Your task to perform on an android device: Show the shopping cart on ebay. Image 0: 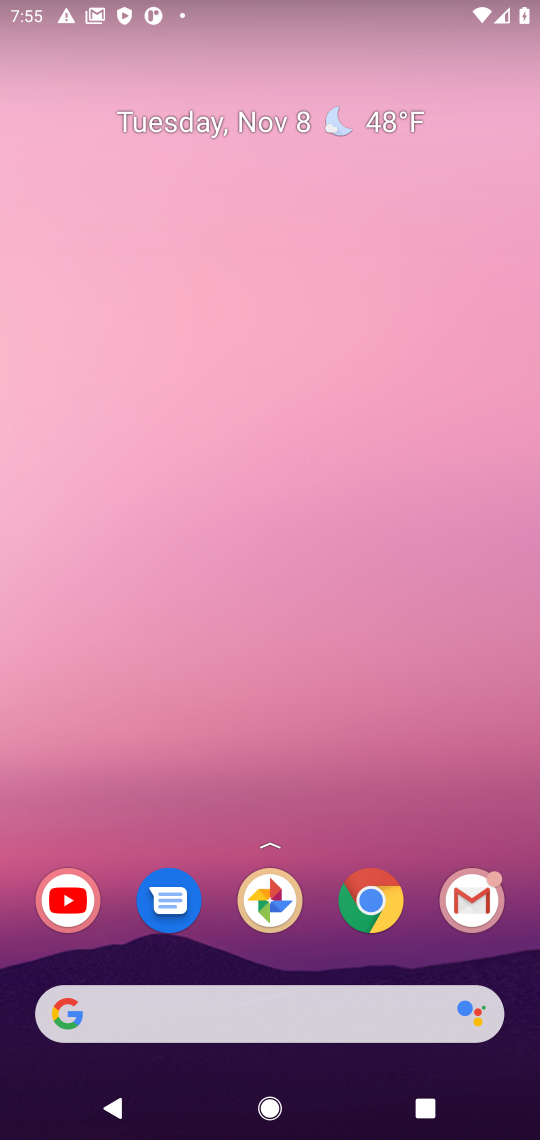
Step 0: click (363, 921)
Your task to perform on an android device: Show the shopping cart on ebay. Image 1: 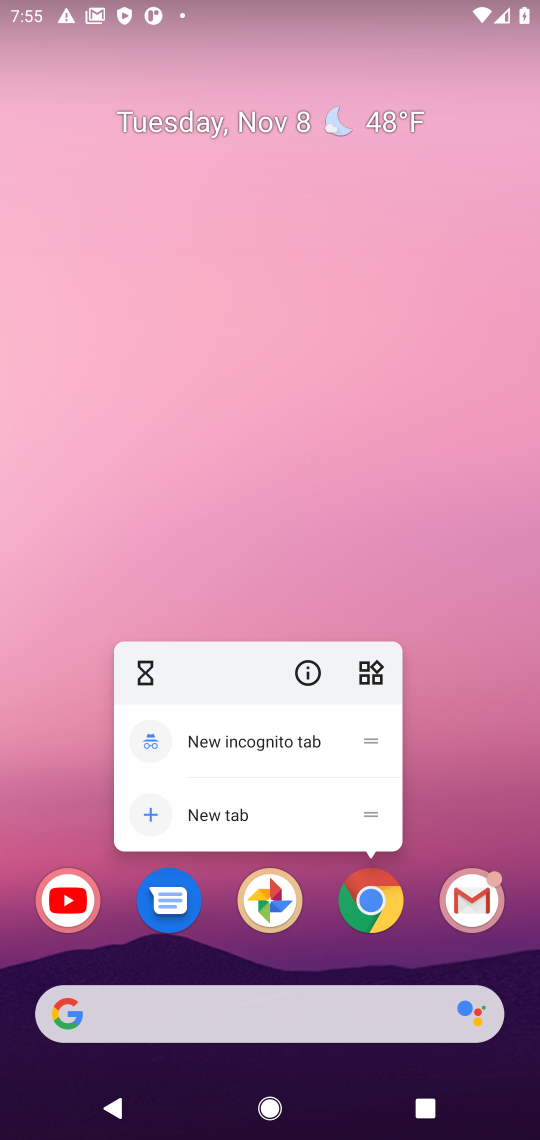
Step 1: click (388, 912)
Your task to perform on an android device: Show the shopping cart on ebay. Image 2: 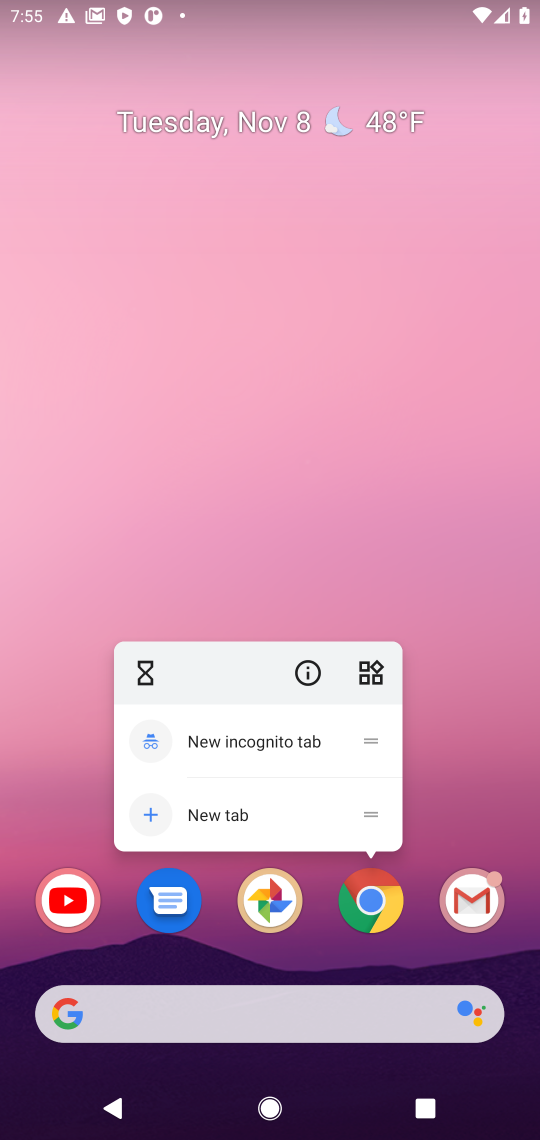
Step 2: click (394, 902)
Your task to perform on an android device: Show the shopping cart on ebay. Image 3: 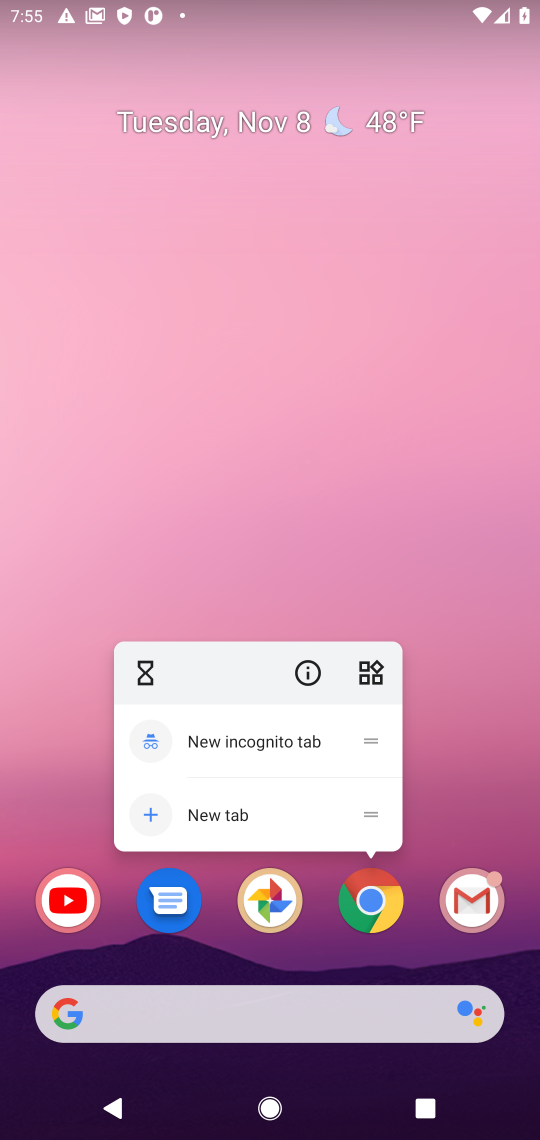
Step 3: click (369, 912)
Your task to perform on an android device: Show the shopping cart on ebay. Image 4: 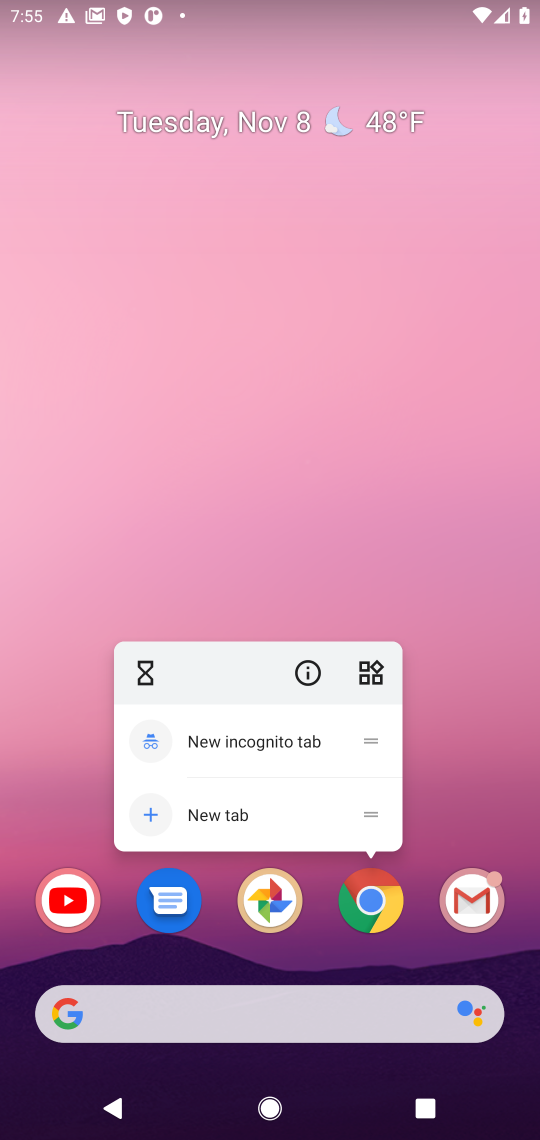
Step 4: click (369, 912)
Your task to perform on an android device: Show the shopping cart on ebay. Image 5: 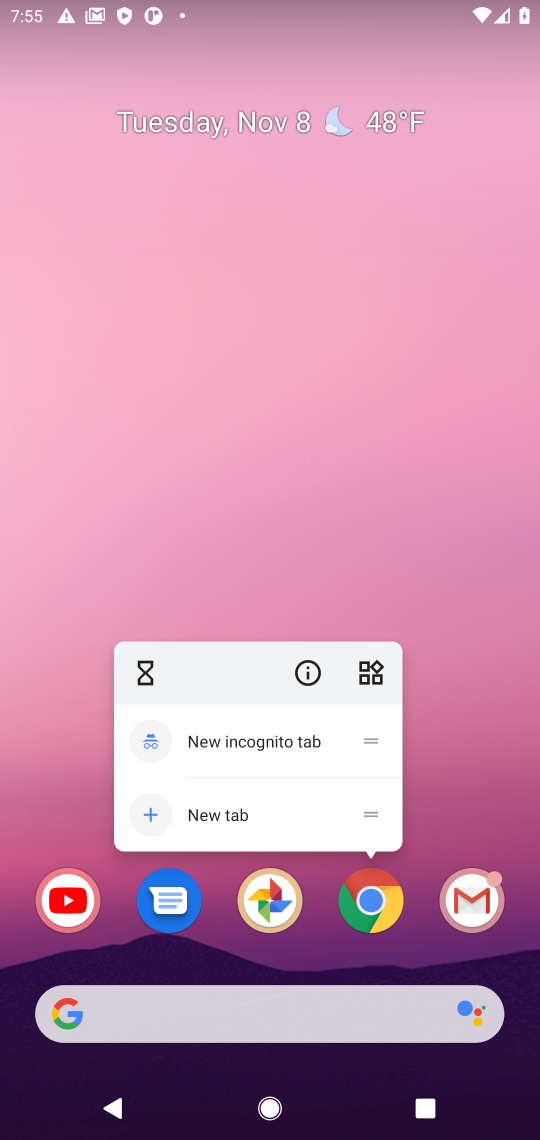
Step 5: click (369, 912)
Your task to perform on an android device: Show the shopping cart on ebay. Image 6: 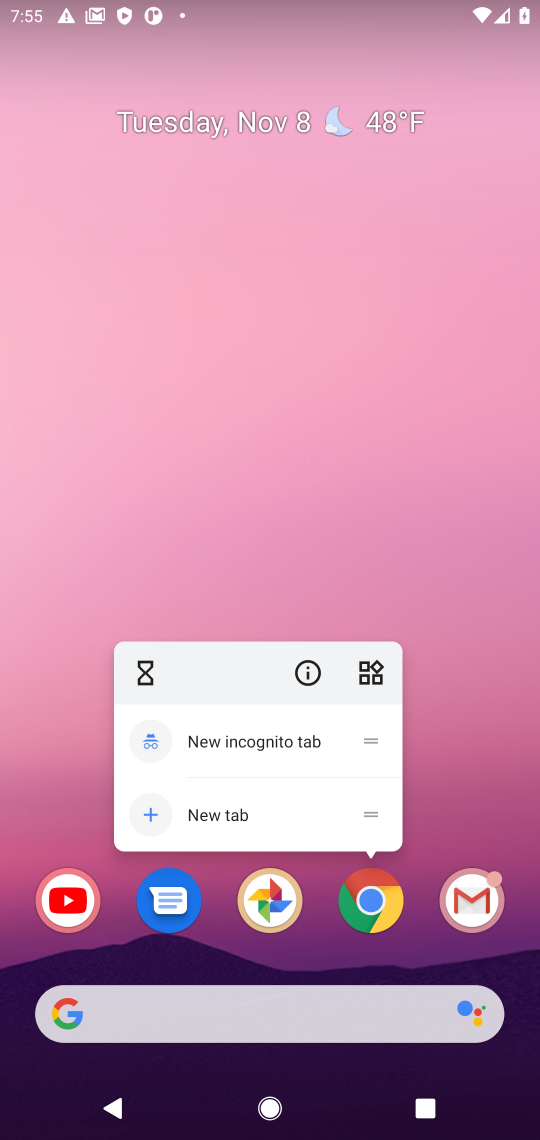
Step 6: press back button
Your task to perform on an android device: Show the shopping cart on ebay. Image 7: 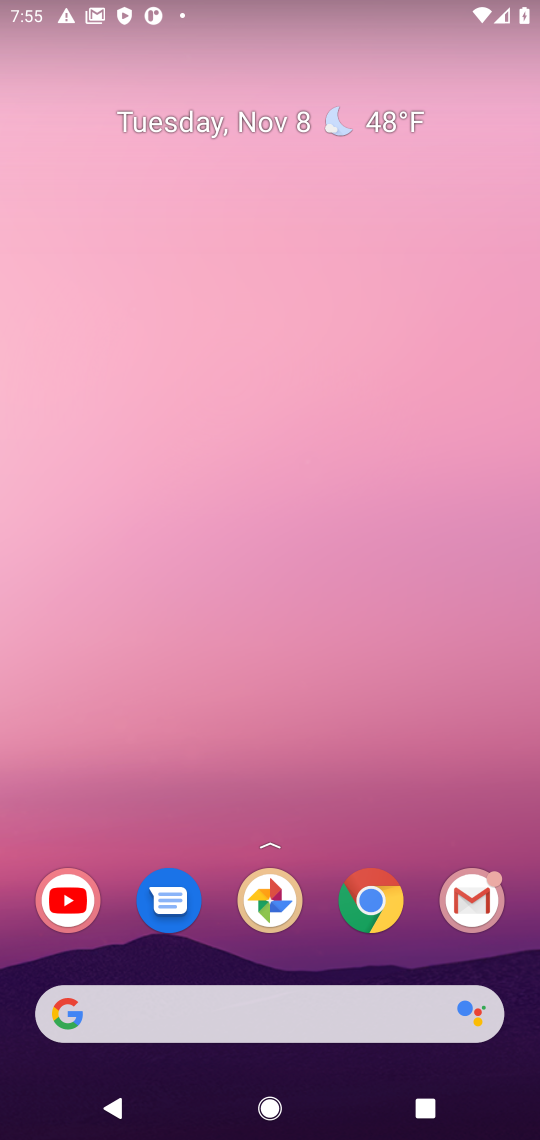
Step 7: press back button
Your task to perform on an android device: Show the shopping cart on ebay. Image 8: 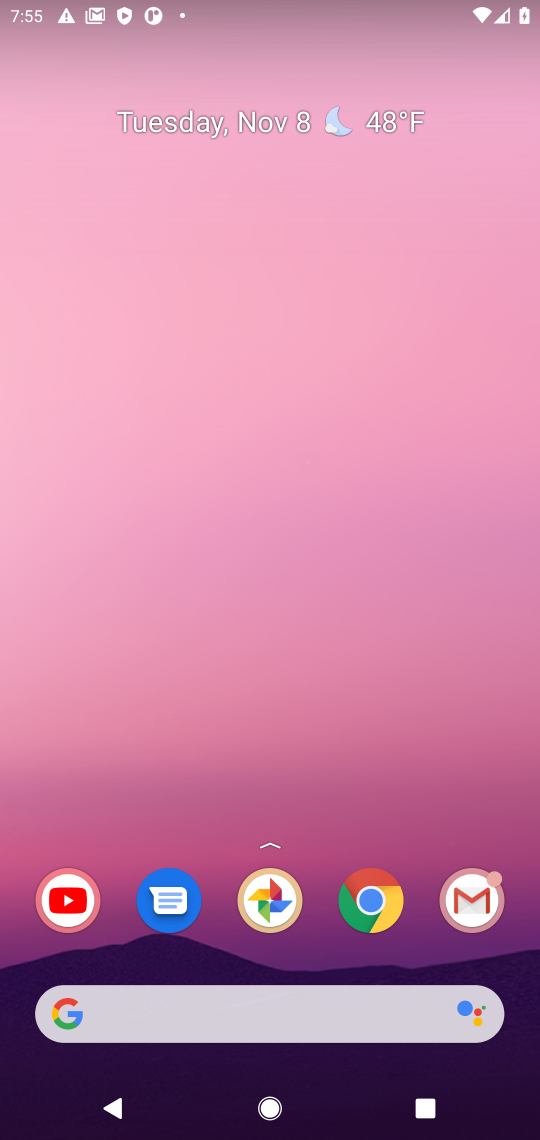
Step 8: press back button
Your task to perform on an android device: Show the shopping cart on ebay. Image 9: 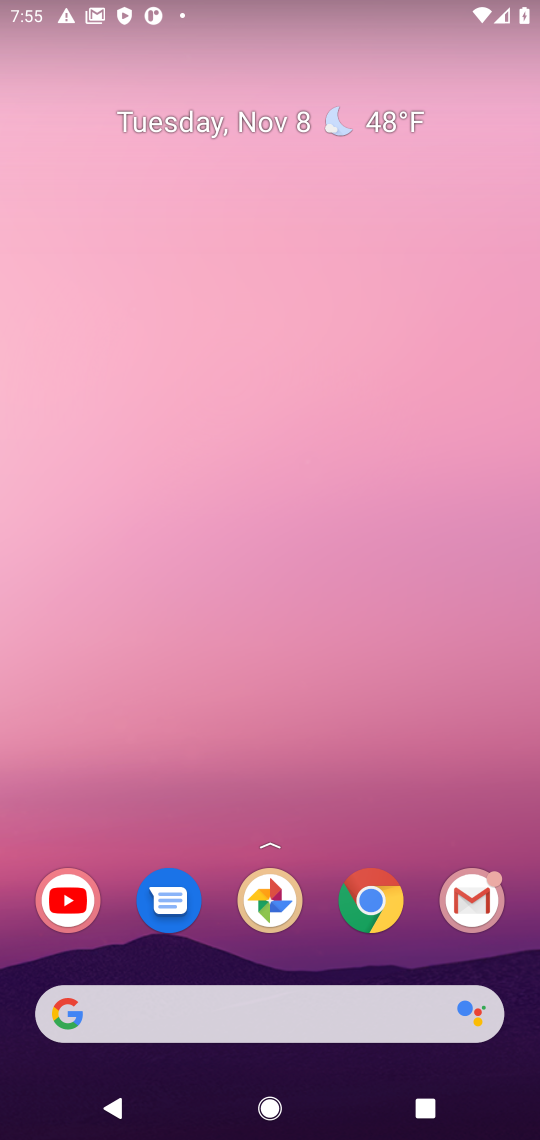
Step 9: click (373, 892)
Your task to perform on an android device: Show the shopping cart on ebay. Image 10: 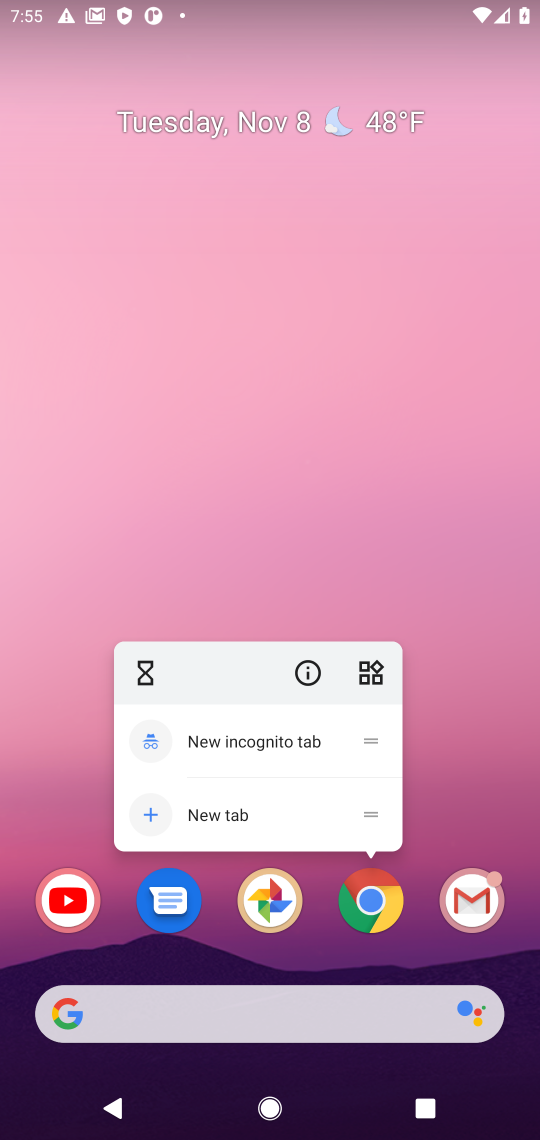
Step 10: click (384, 896)
Your task to perform on an android device: Show the shopping cart on ebay. Image 11: 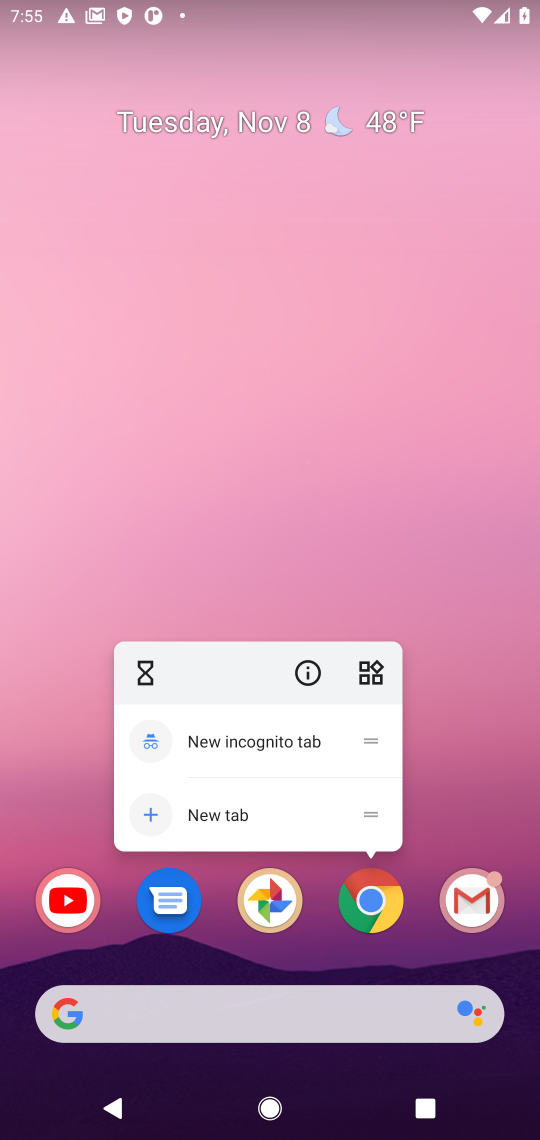
Step 11: press home button
Your task to perform on an android device: Show the shopping cart on ebay. Image 12: 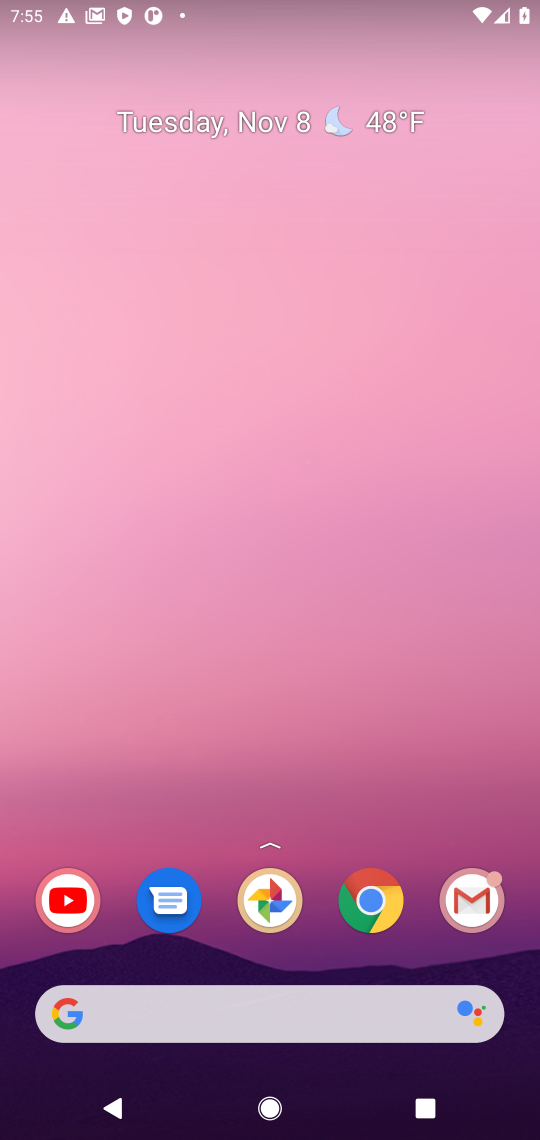
Step 12: click (375, 911)
Your task to perform on an android device: Show the shopping cart on ebay. Image 13: 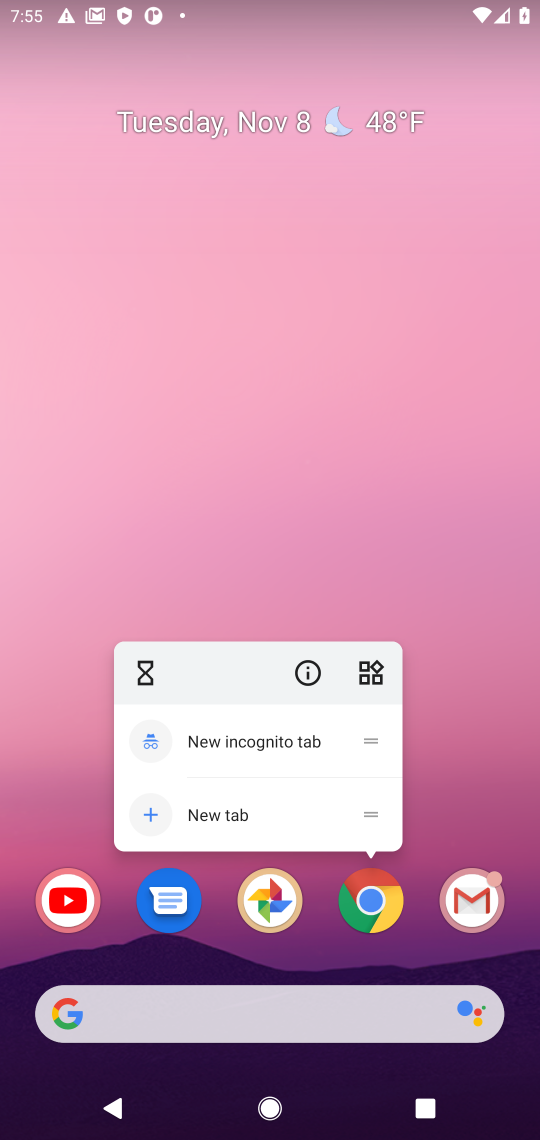
Step 13: click (371, 906)
Your task to perform on an android device: Show the shopping cart on ebay. Image 14: 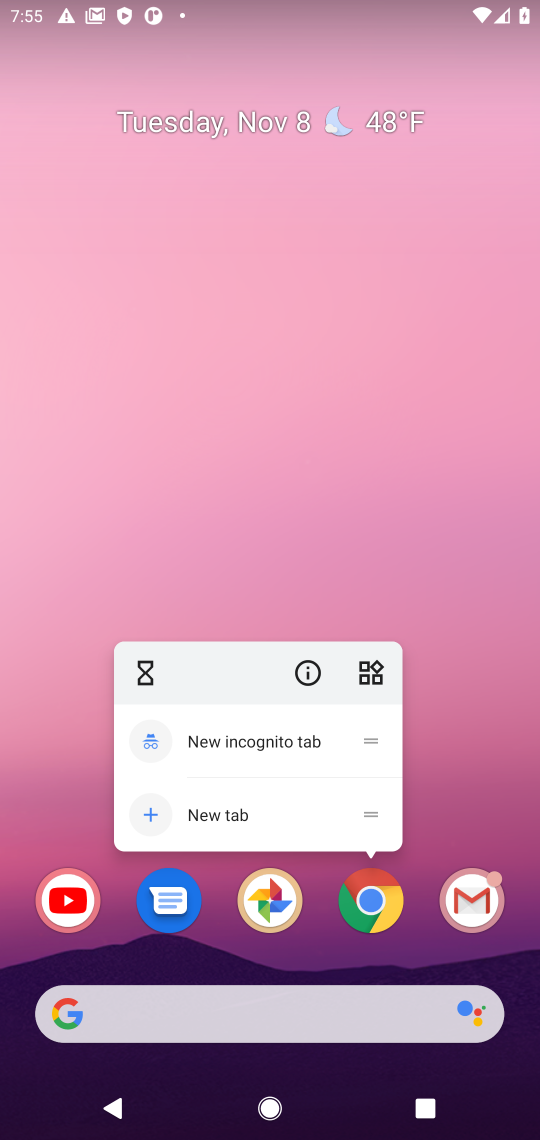
Step 14: click (371, 906)
Your task to perform on an android device: Show the shopping cart on ebay. Image 15: 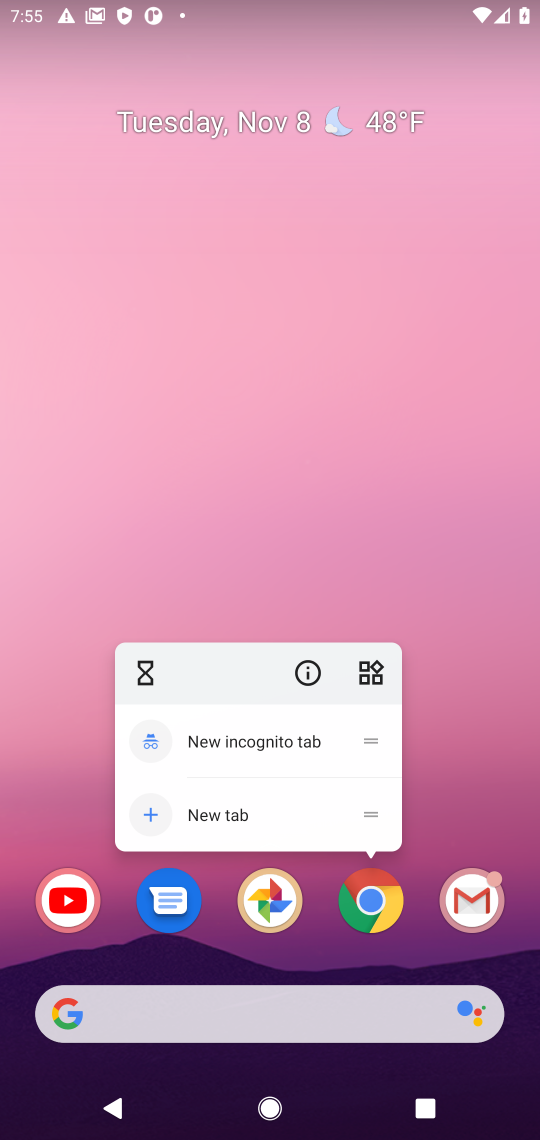
Step 15: click (371, 906)
Your task to perform on an android device: Show the shopping cart on ebay. Image 16: 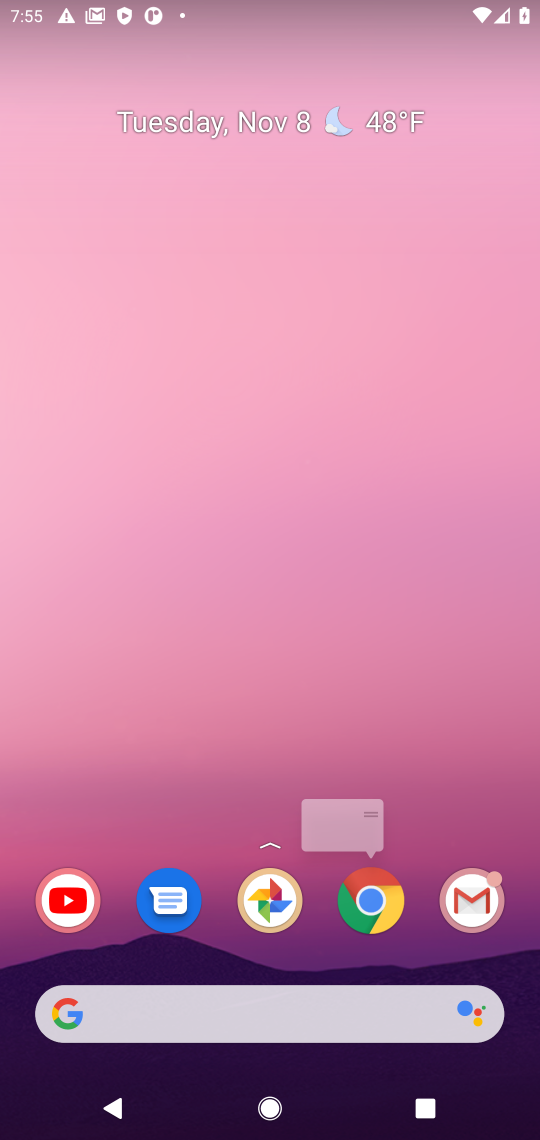
Step 16: click (371, 906)
Your task to perform on an android device: Show the shopping cart on ebay. Image 17: 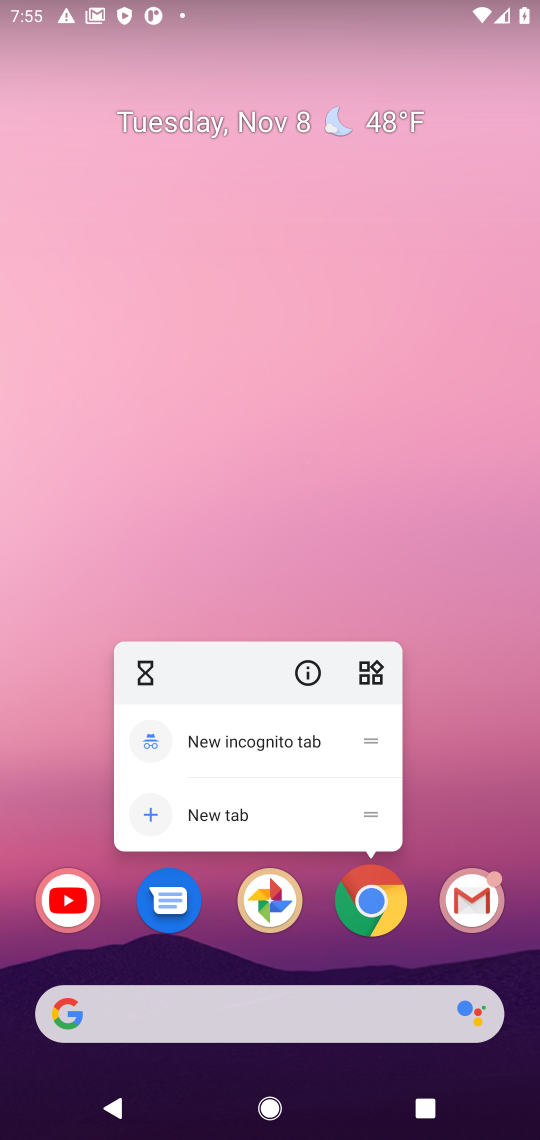
Step 17: click (371, 906)
Your task to perform on an android device: Show the shopping cart on ebay. Image 18: 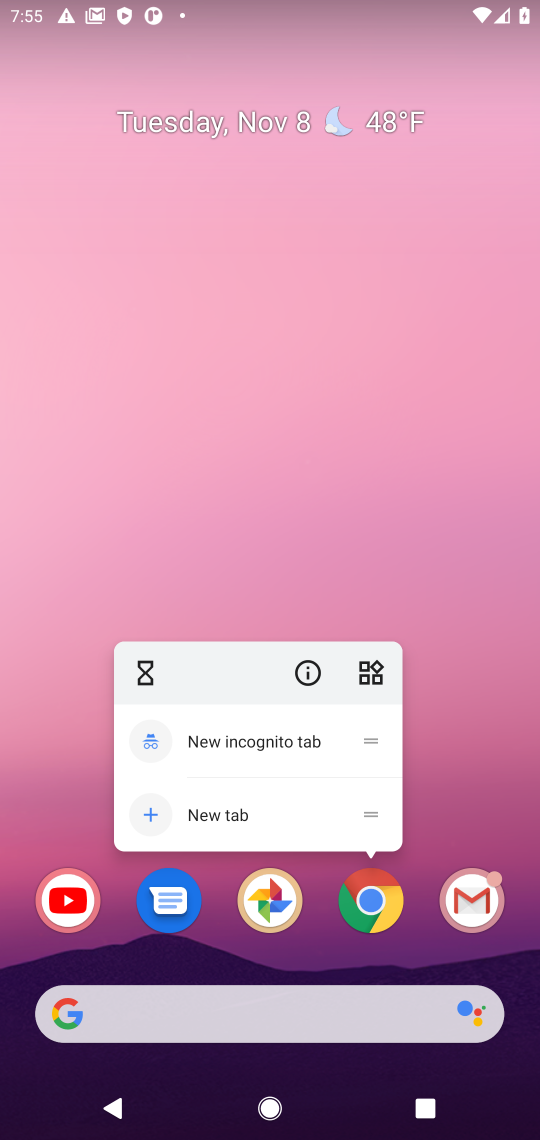
Step 18: click (369, 914)
Your task to perform on an android device: Show the shopping cart on ebay. Image 19: 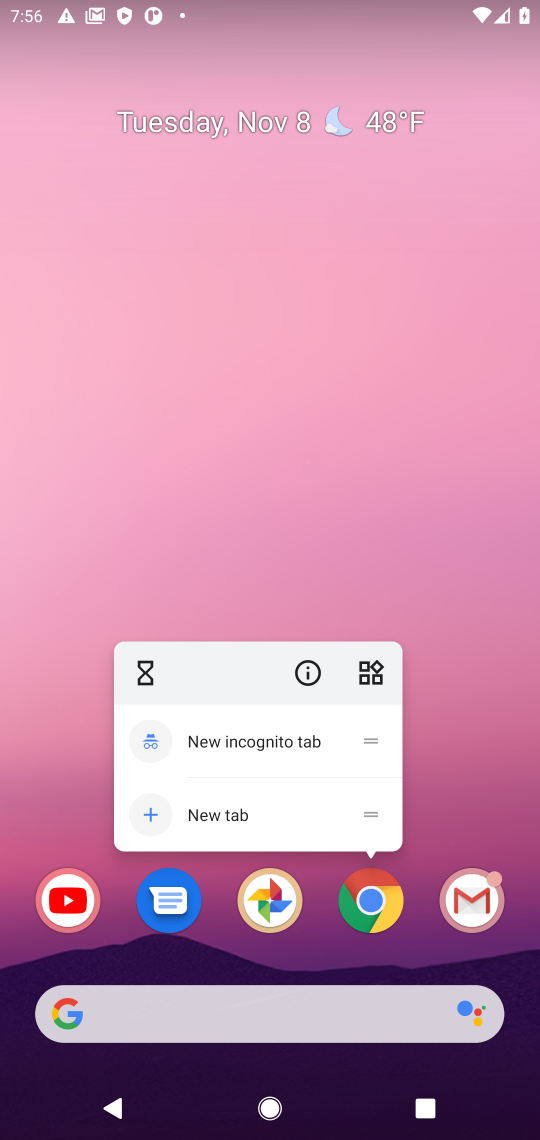
Step 19: press home button
Your task to perform on an android device: Show the shopping cart on ebay. Image 20: 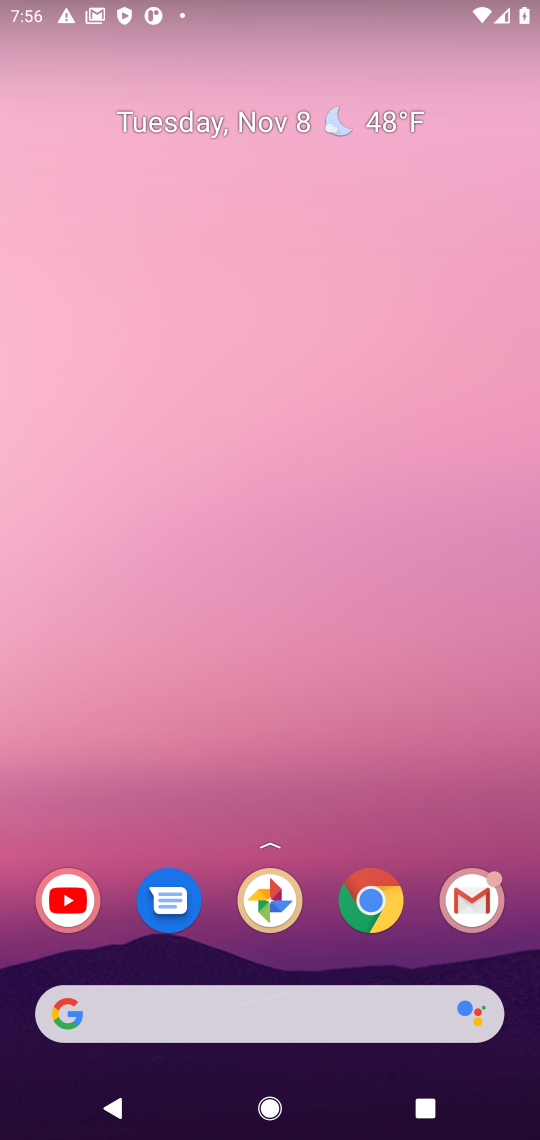
Step 20: press home button
Your task to perform on an android device: Show the shopping cart on ebay. Image 21: 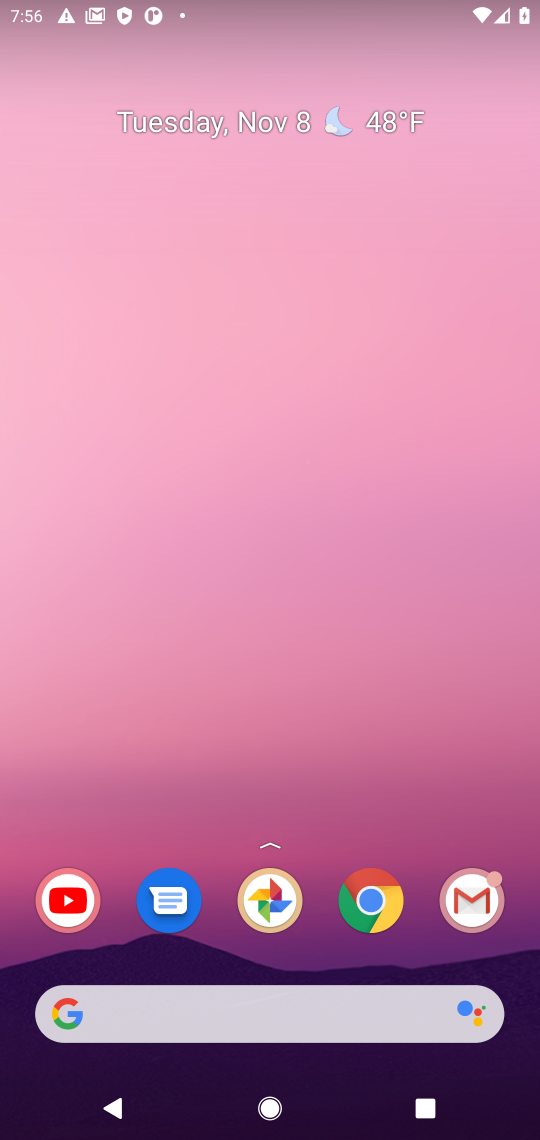
Step 21: click (387, 898)
Your task to perform on an android device: Show the shopping cart on ebay. Image 22: 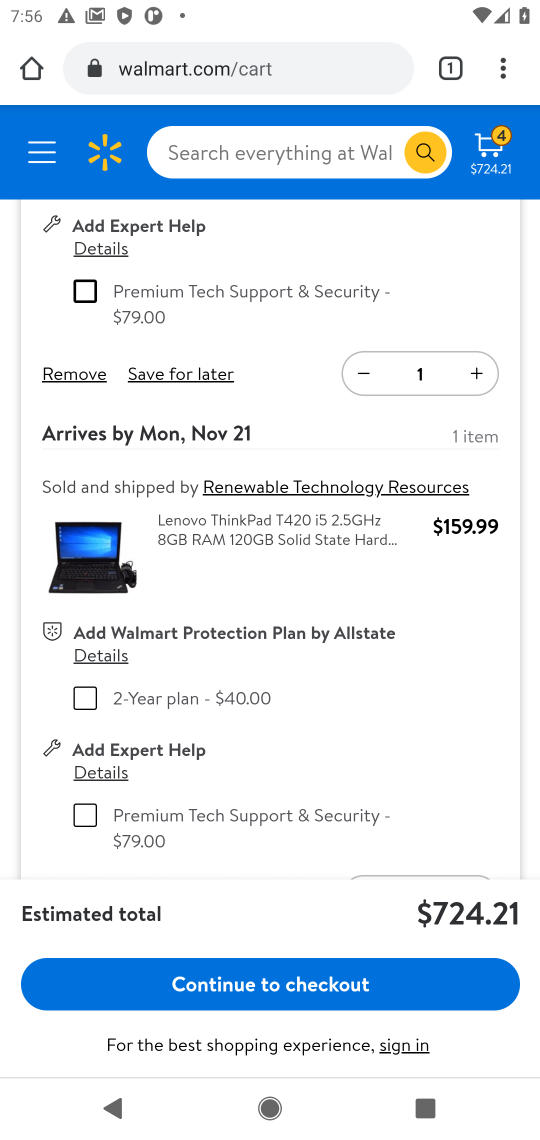
Step 22: click (178, 72)
Your task to perform on an android device: Show the shopping cart on ebay. Image 23: 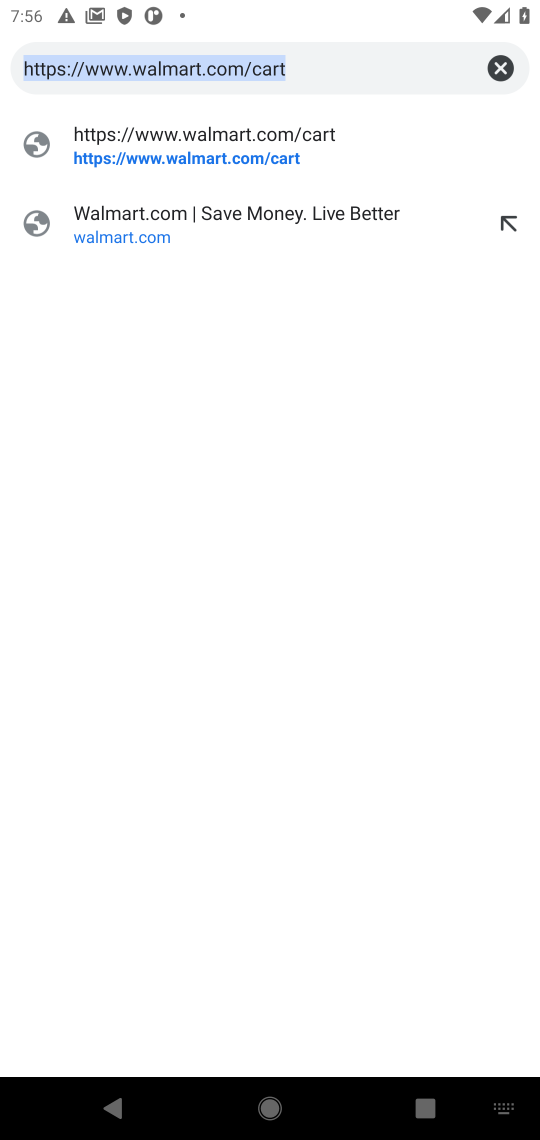
Step 23: click (504, 72)
Your task to perform on an android device: Show the shopping cart on ebay. Image 24: 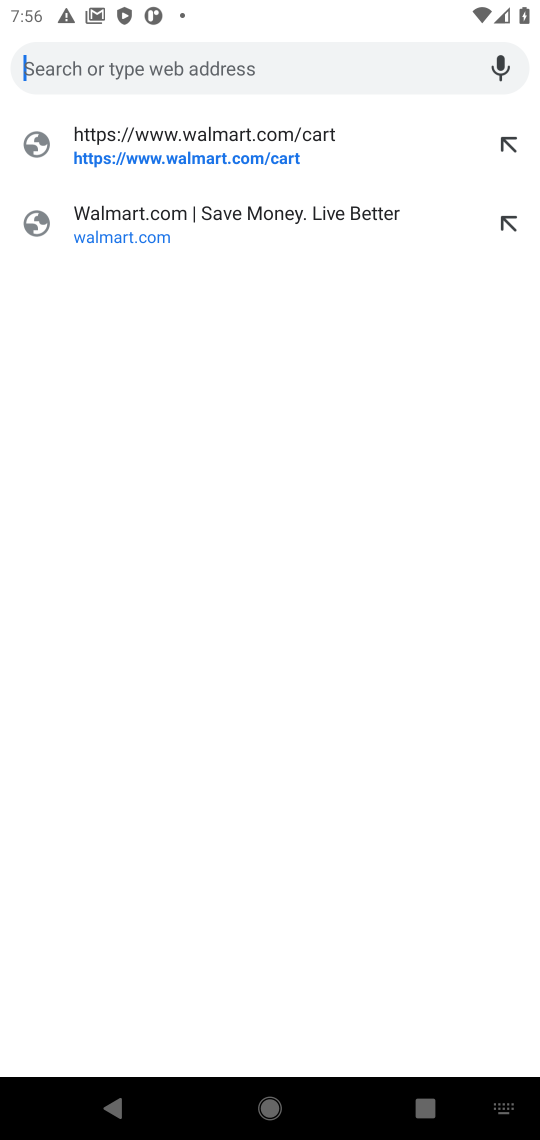
Step 24: type "ebay"
Your task to perform on an android device: Show the shopping cart on ebay. Image 25: 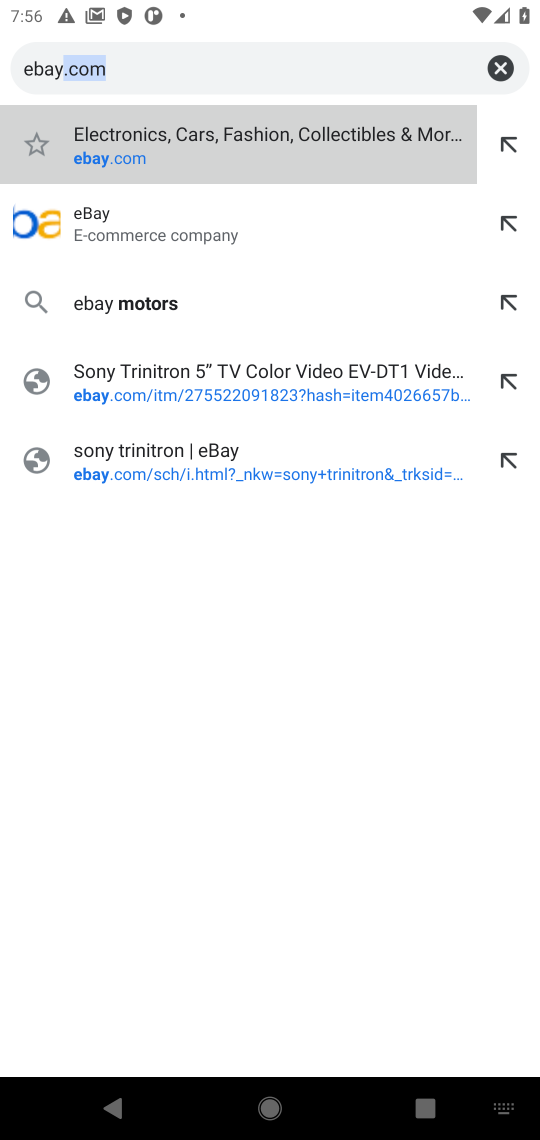
Step 25: type ""
Your task to perform on an android device: Show the shopping cart on ebay. Image 26: 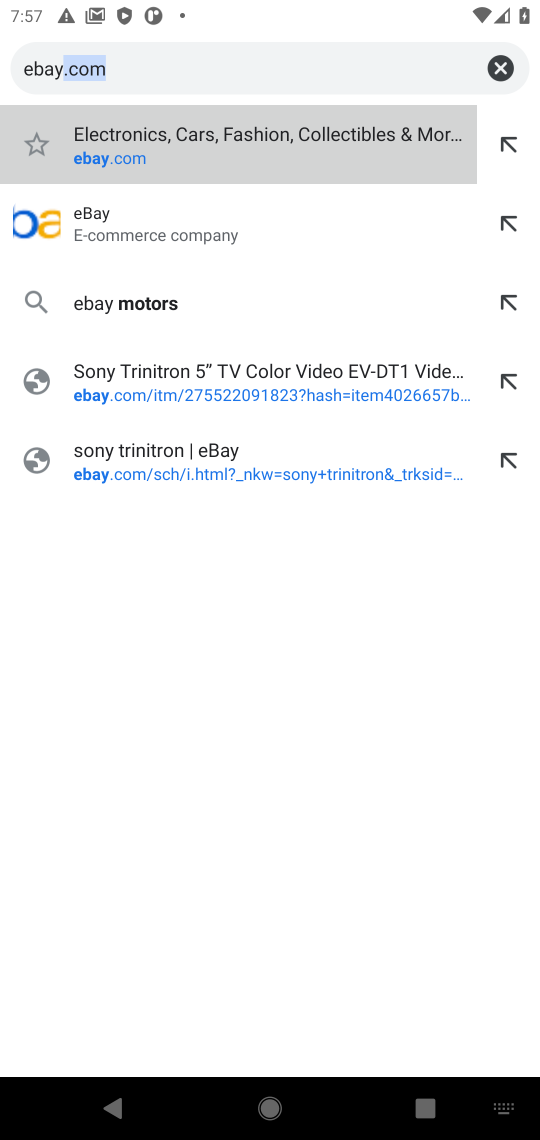
Step 26: click (88, 220)
Your task to perform on an android device: Show the shopping cart on ebay. Image 27: 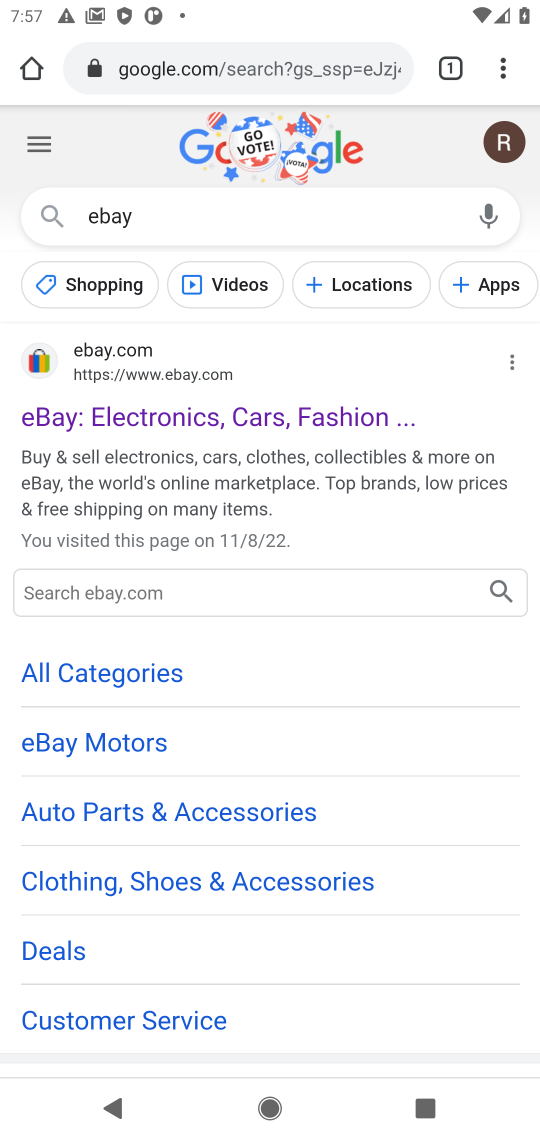
Step 27: click (110, 406)
Your task to perform on an android device: Show the shopping cart on ebay. Image 28: 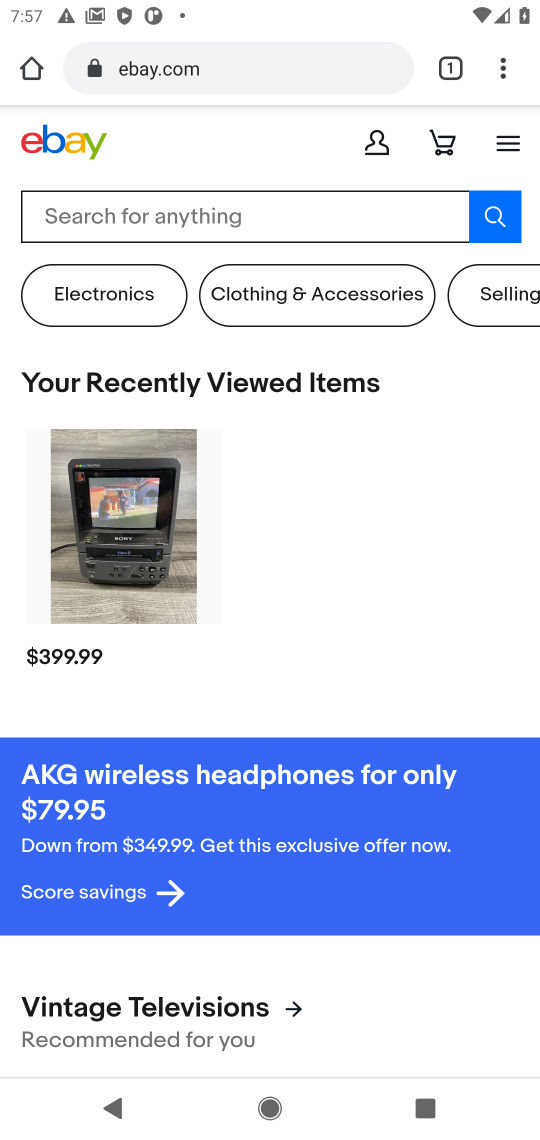
Step 28: click (49, 204)
Your task to perform on an android device: Show the shopping cart on ebay. Image 29: 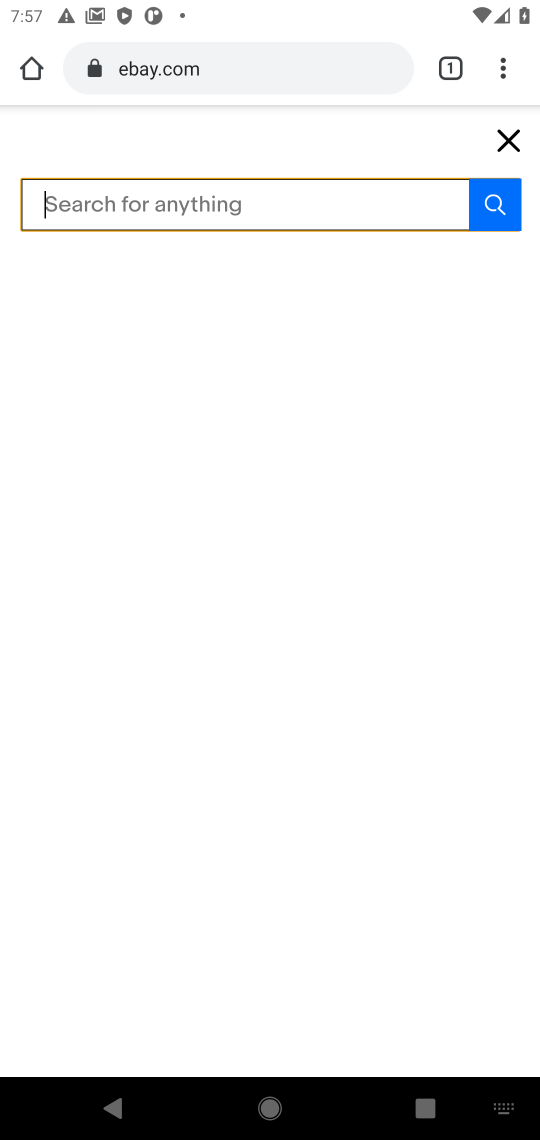
Step 29: press back button
Your task to perform on an android device: Show the shopping cart on ebay. Image 30: 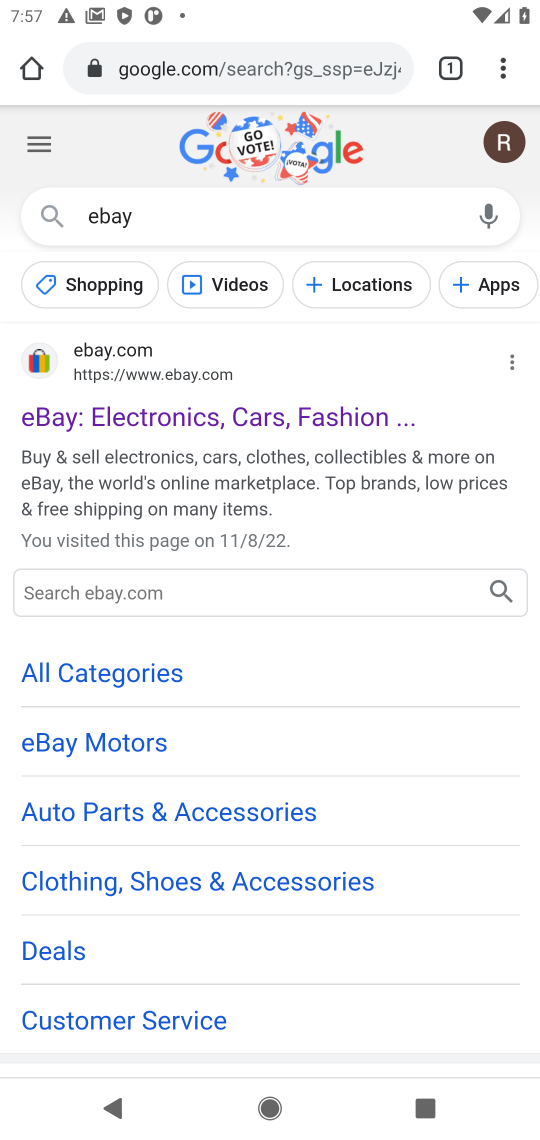
Step 30: click (138, 417)
Your task to perform on an android device: Show the shopping cart on ebay. Image 31: 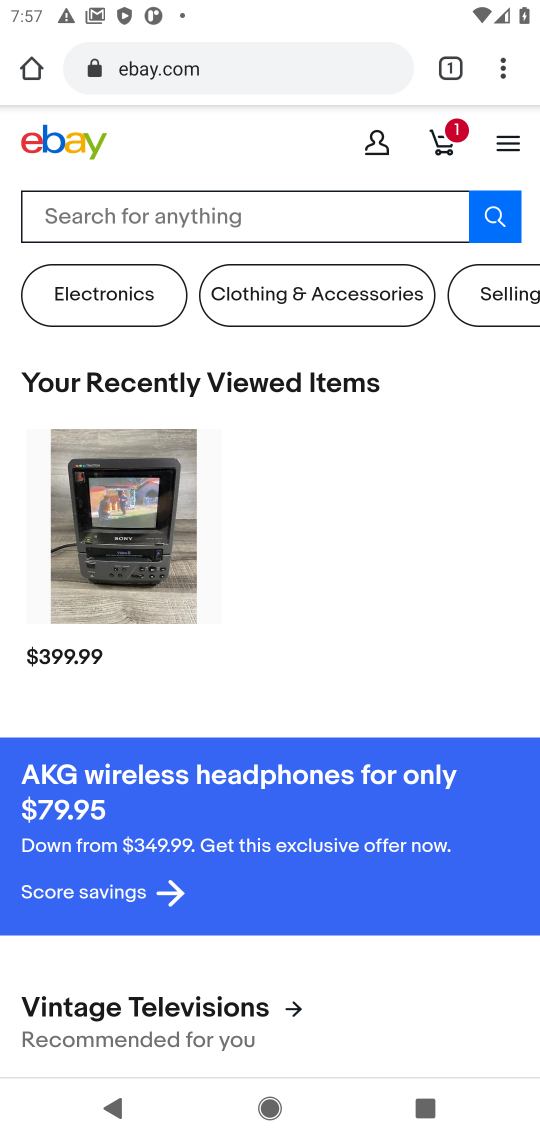
Step 31: click (448, 147)
Your task to perform on an android device: Show the shopping cart on ebay. Image 32: 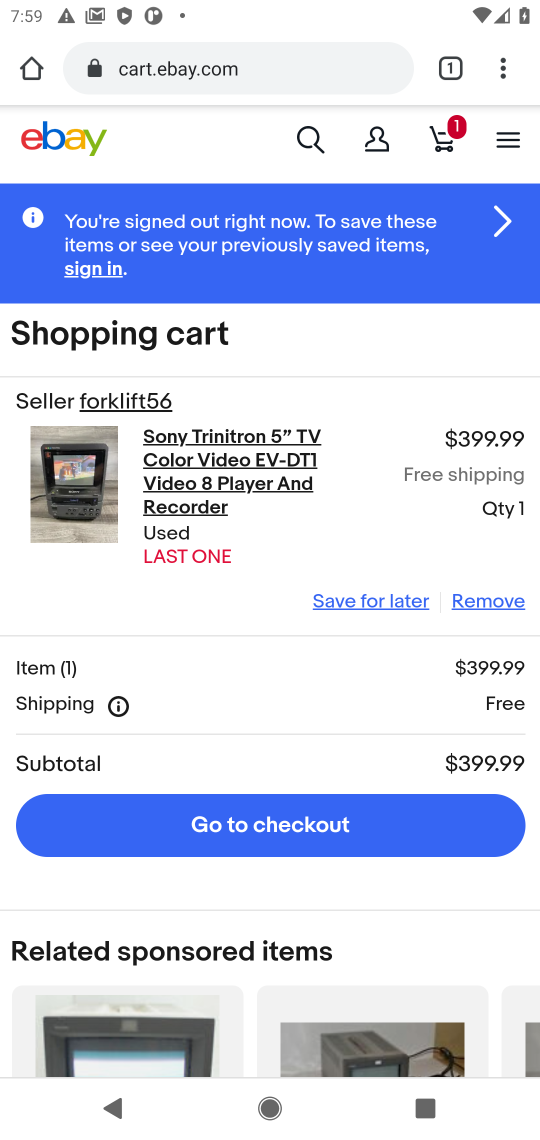
Step 32: task complete